Your task to perform on an android device: turn on javascript in the chrome app Image 0: 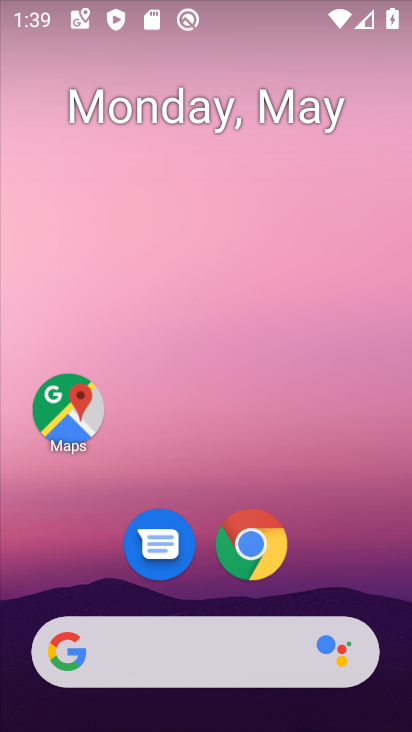
Step 0: drag from (378, 587) to (376, 236)
Your task to perform on an android device: turn on javascript in the chrome app Image 1: 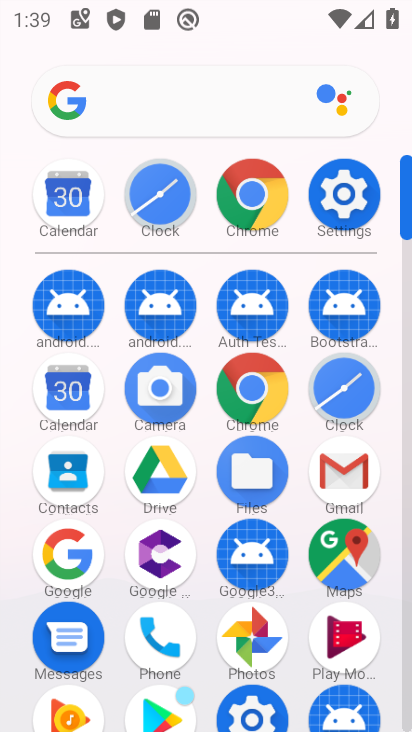
Step 1: click (258, 393)
Your task to perform on an android device: turn on javascript in the chrome app Image 2: 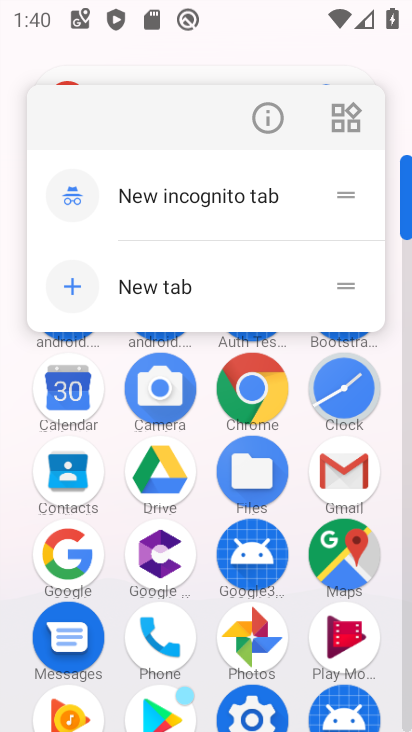
Step 2: click (258, 392)
Your task to perform on an android device: turn on javascript in the chrome app Image 3: 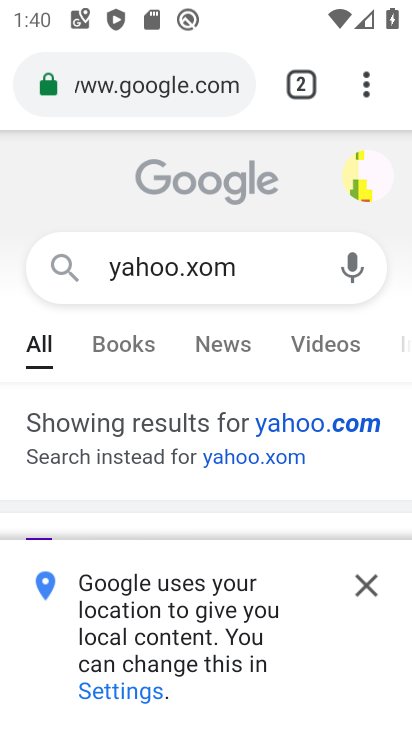
Step 3: click (365, 95)
Your task to perform on an android device: turn on javascript in the chrome app Image 4: 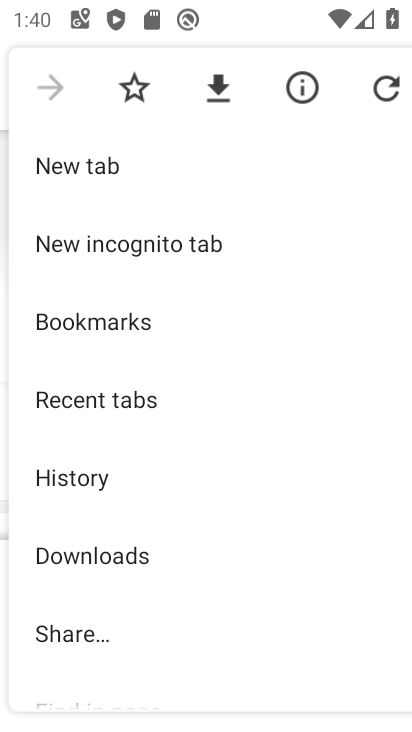
Step 4: drag from (252, 495) to (271, 399)
Your task to perform on an android device: turn on javascript in the chrome app Image 5: 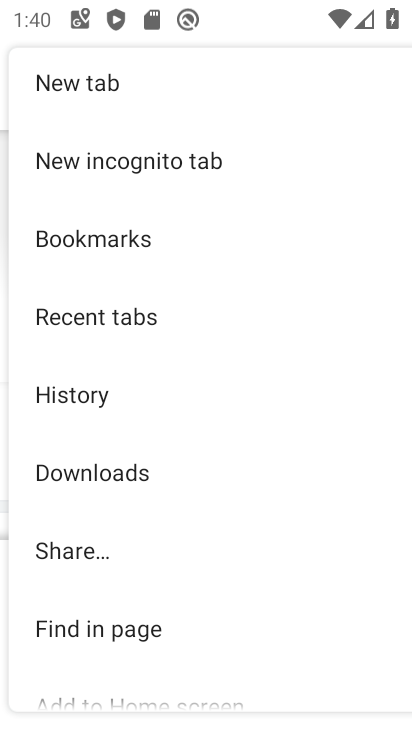
Step 5: drag from (290, 497) to (289, 395)
Your task to perform on an android device: turn on javascript in the chrome app Image 6: 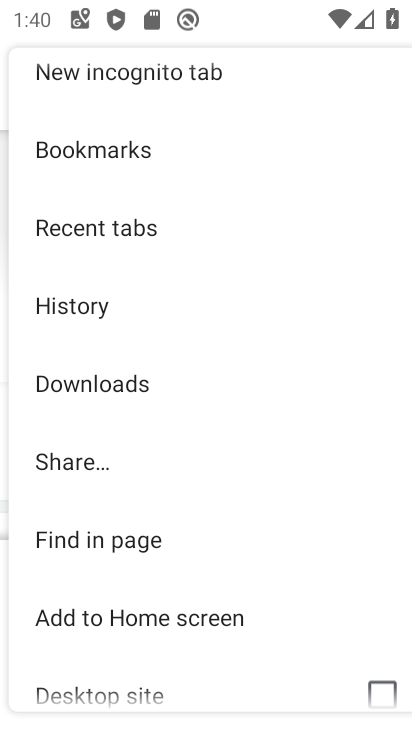
Step 6: drag from (278, 508) to (276, 405)
Your task to perform on an android device: turn on javascript in the chrome app Image 7: 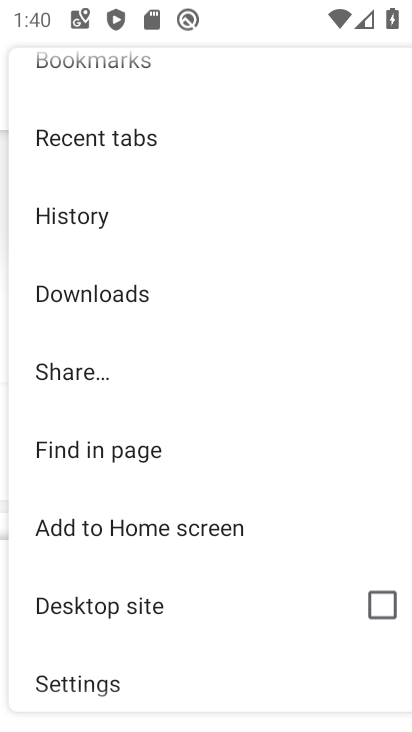
Step 7: drag from (263, 514) to (264, 414)
Your task to perform on an android device: turn on javascript in the chrome app Image 8: 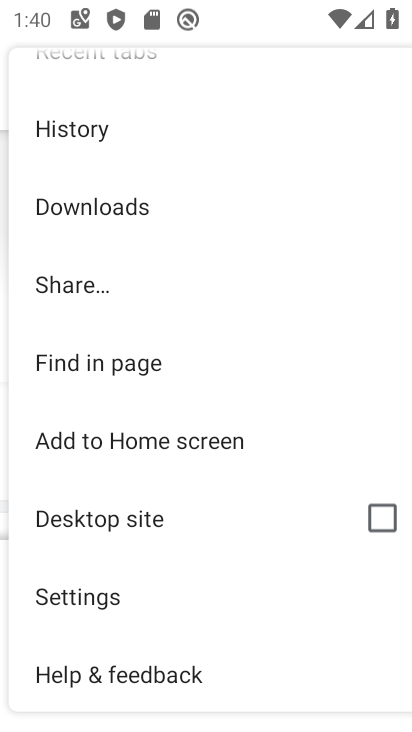
Step 8: drag from (245, 580) to (259, 463)
Your task to perform on an android device: turn on javascript in the chrome app Image 9: 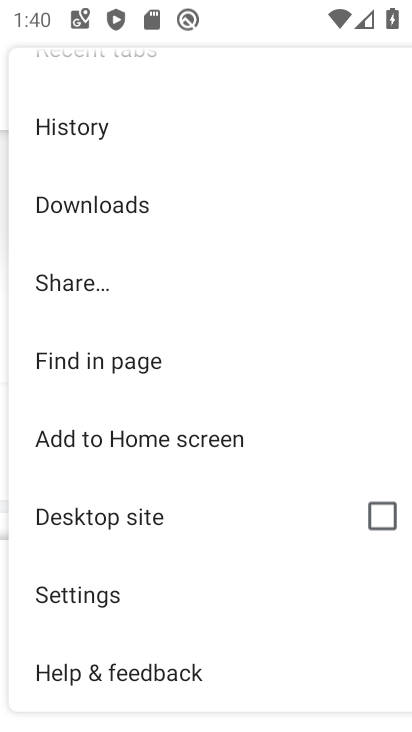
Step 9: click (193, 607)
Your task to perform on an android device: turn on javascript in the chrome app Image 10: 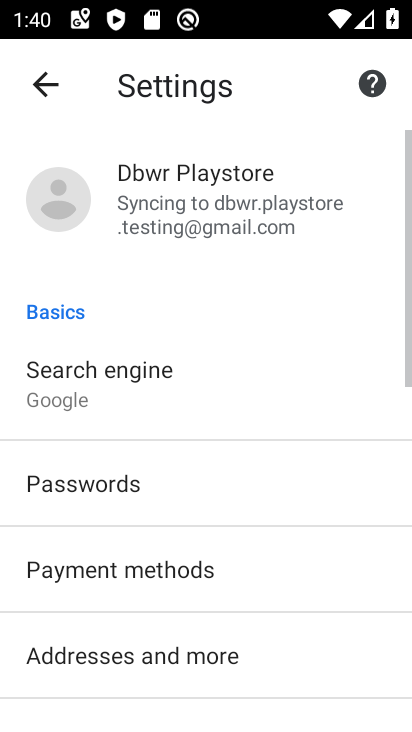
Step 10: drag from (282, 593) to (302, 524)
Your task to perform on an android device: turn on javascript in the chrome app Image 11: 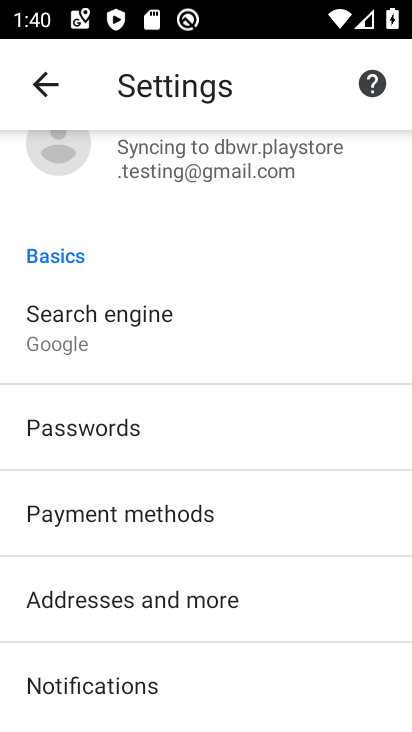
Step 11: drag from (340, 636) to (343, 522)
Your task to perform on an android device: turn on javascript in the chrome app Image 12: 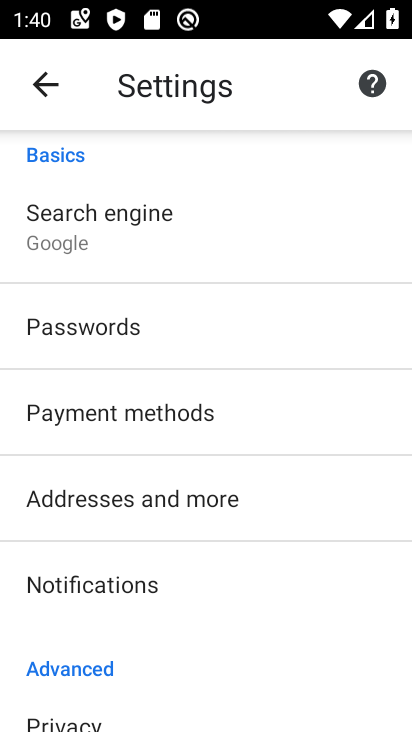
Step 12: drag from (315, 668) to (348, 476)
Your task to perform on an android device: turn on javascript in the chrome app Image 13: 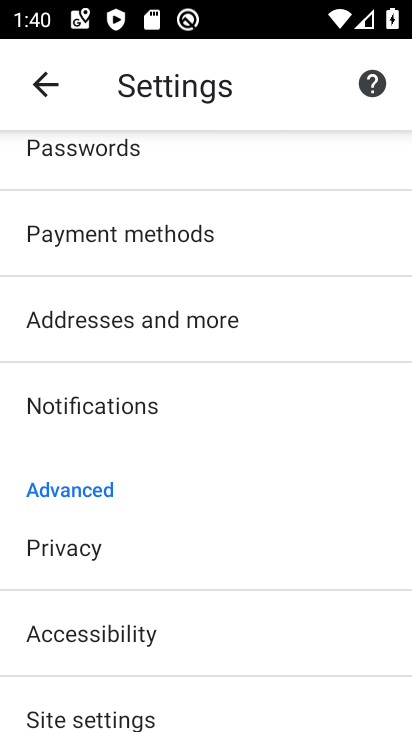
Step 13: drag from (329, 646) to (338, 577)
Your task to perform on an android device: turn on javascript in the chrome app Image 14: 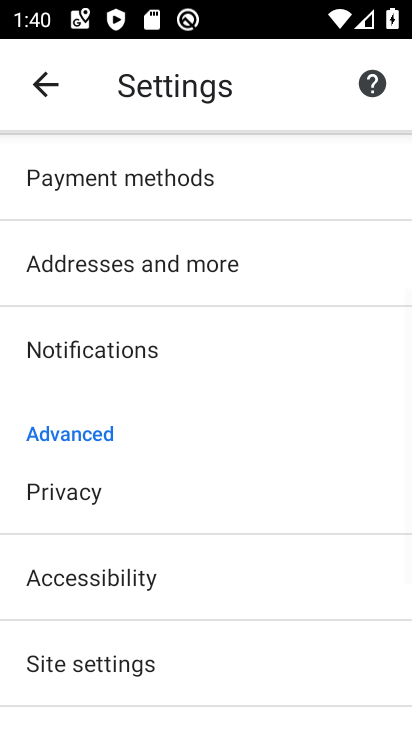
Step 14: drag from (319, 668) to (327, 574)
Your task to perform on an android device: turn on javascript in the chrome app Image 15: 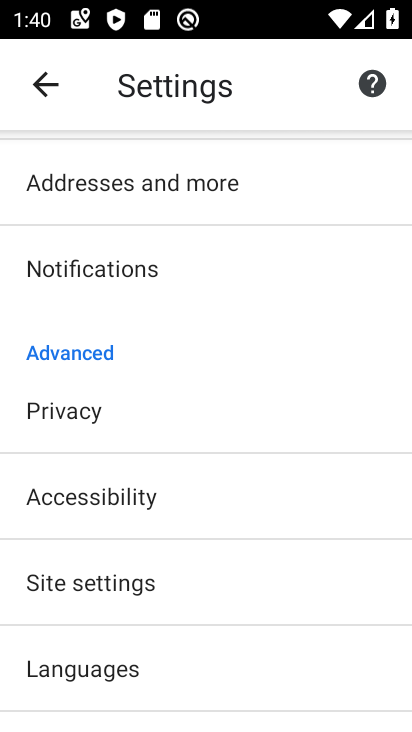
Step 15: drag from (328, 678) to (347, 538)
Your task to perform on an android device: turn on javascript in the chrome app Image 16: 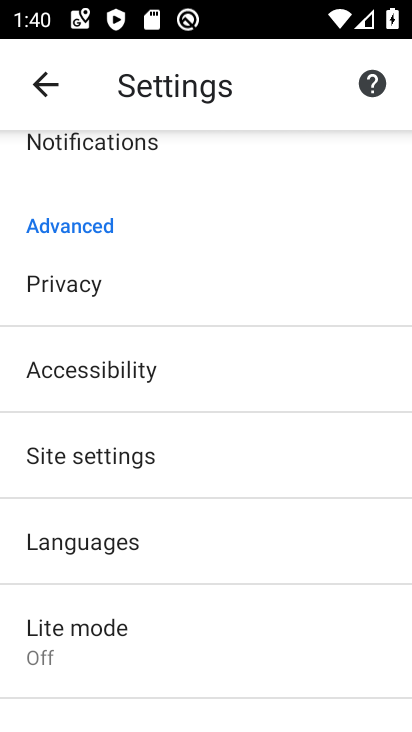
Step 16: drag from (326, 658) to (332, 467)
Your task to perform on an android device: turn on javascript in the chrome app Image 17: 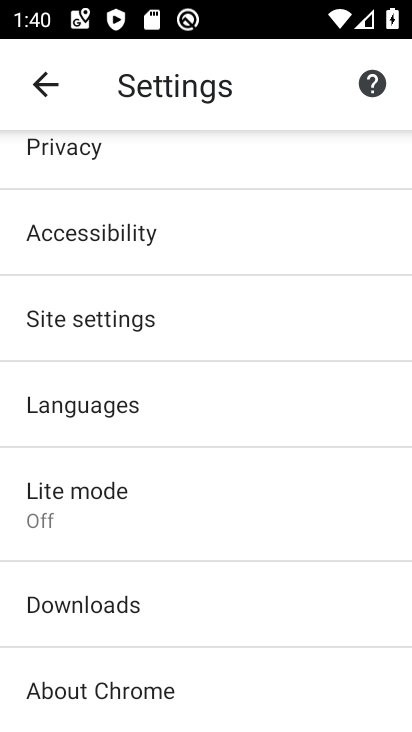
Step 17: click (247, 330)
Your task to perform on an android device: turn on javascript in the chrome app Image 18: 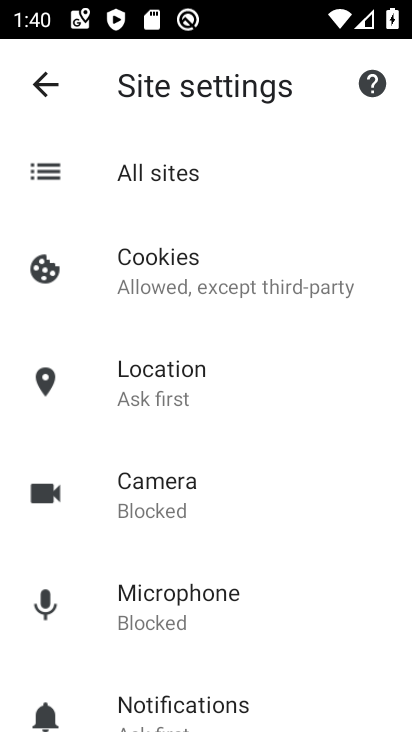
Step 18: drag from (305, 576) to (317, 471)
Your task to perform on an android device: turn on javascript in the chrome app Image 19: 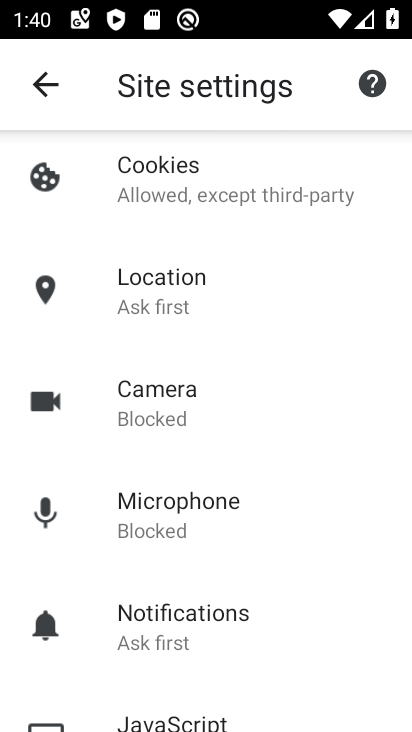
Step 19: drag from (331, 584) to (336, 485)
Your task to perform on an android device: turn on javascript in the chrome app Image 20: 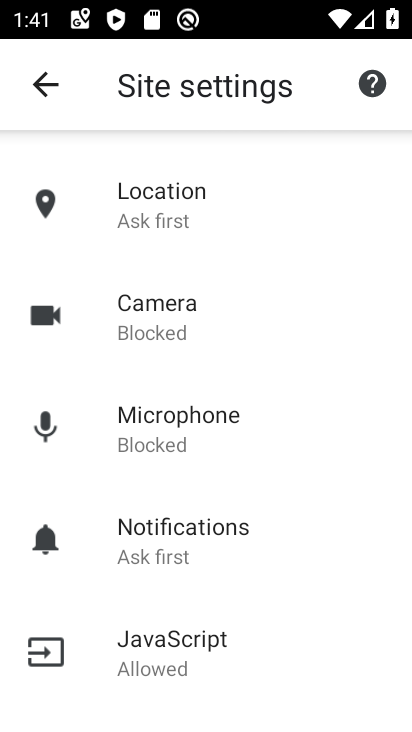
Step 20: drag from (320, 609) to (319, 505)
Your task to perform on an android device: turn on javascript in the chrome app Image 21: 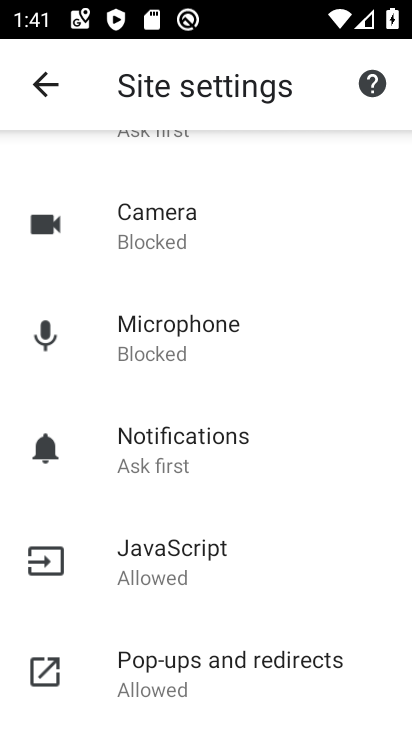
Step 21: click (259, 585)
Your task to perform on an android device: turn on javascript in the chrome app Image 22: 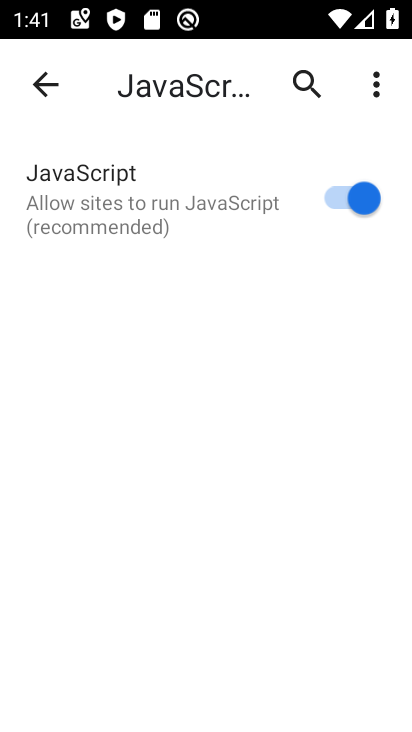
Step 22: task complete